Your task to perform on an android device: turn on improve location accuracy Image 0: 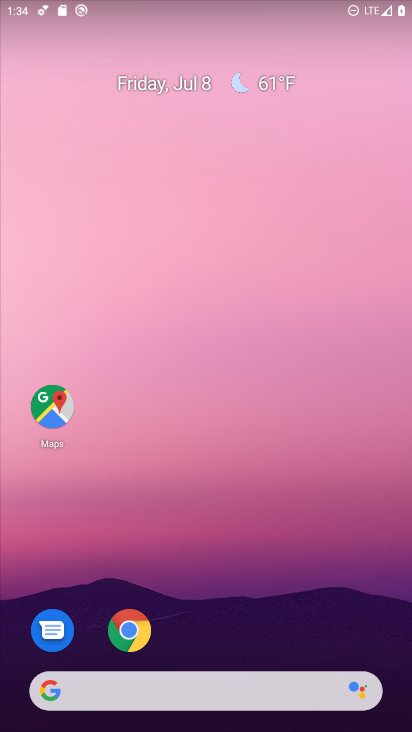
Step 0: drag from (385, 673) to (86, 142)
Your task to perform on an android device: turn on improve location accuracy Image 1: 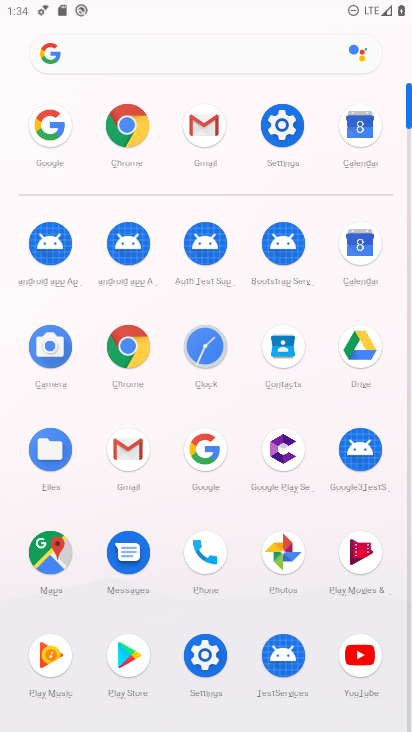
Step 1: click (212, 649)
Your task to perform on an android device: turn on improve location accuracy Image 2: 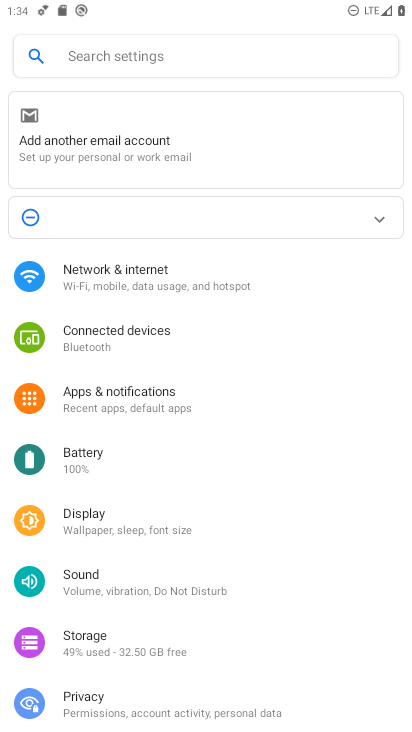
Step 2: drag from (124, 674) to (109, 253)
Your task to perform on an android device: turn on improve location accuracy Image 3: 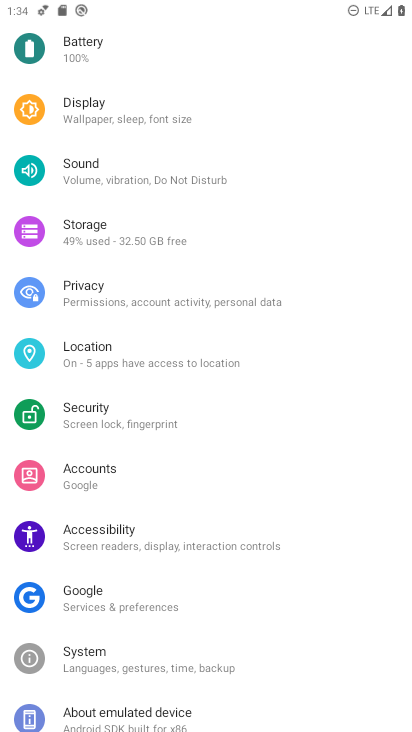
Step 3: click (124, 354)
Your task to perform on an android device: turn on improve location accuracy Image 4: 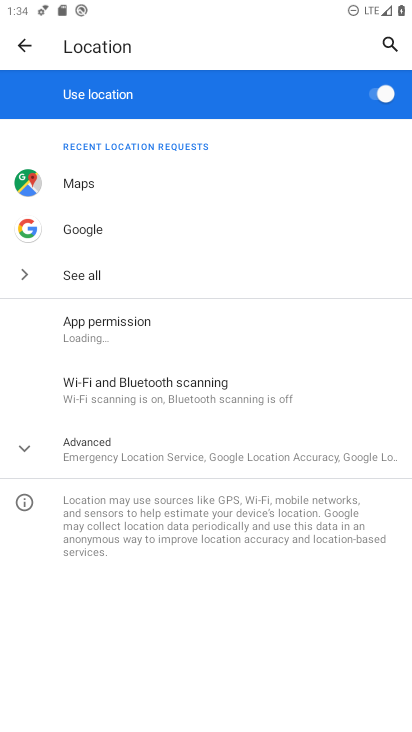
Step 4: click (130, 434)
Your task to perform on an android device: turn on improve location accuracy Image 5: 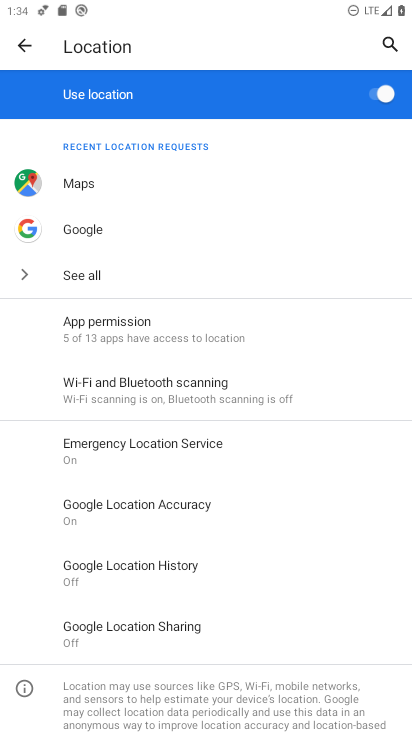
Step 5: click (93, 505)
Your task to perform on an android device: turn on improve location accuracy Image 6: 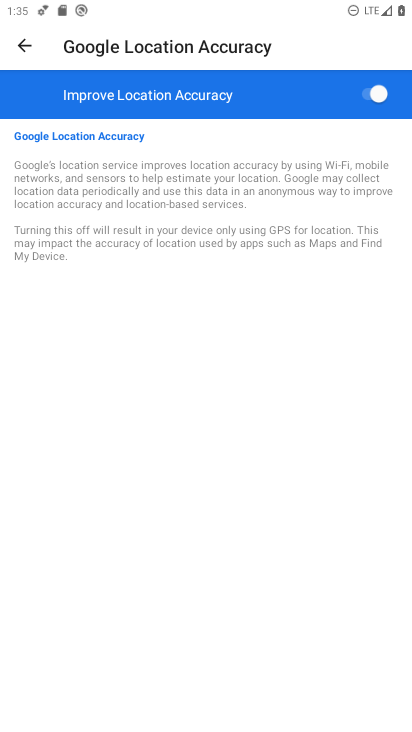
Step 6: task complete